Your task to perform on an android device: Show the shopping cart on bestbuy. Add "duracell triple a" to the cart on bestbuy Image 0: 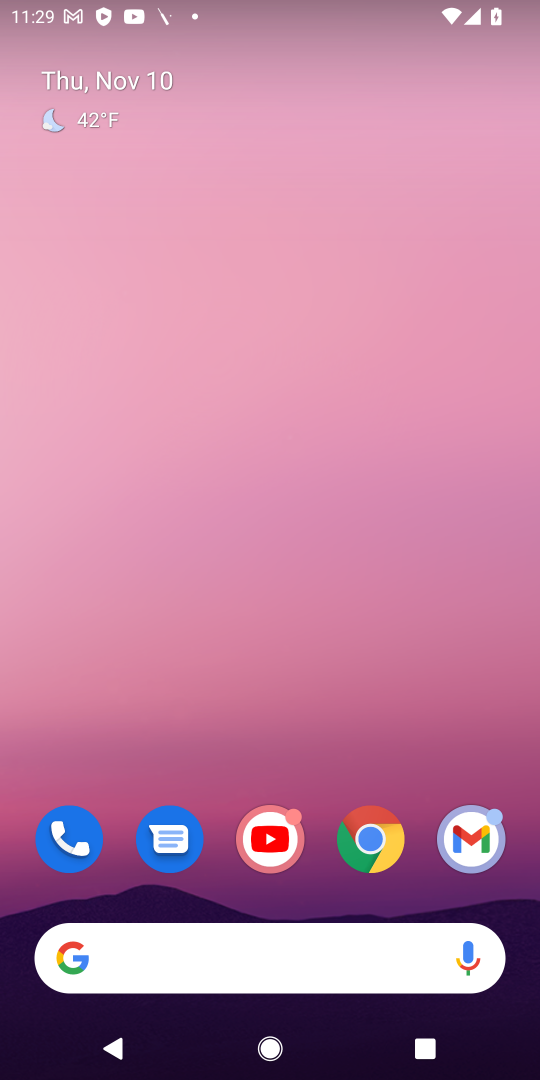
Step 0: click (364, 844)
Your task to perform on an android device: Show the shopping cart on bestbuy. Add "duracell triple a" to the cart on bestbuy Image 1: 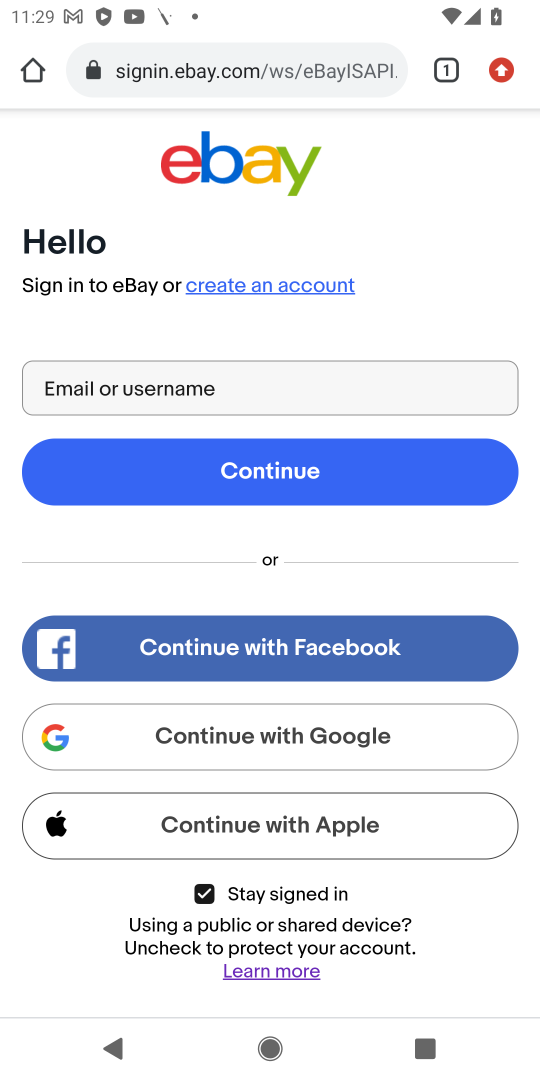
Step 1: click (301, 61)
Your task to perform on an android device: Show the shopping cart on bestbuy. Add "duracell triple a" to the cart on bestbuy Image 2: 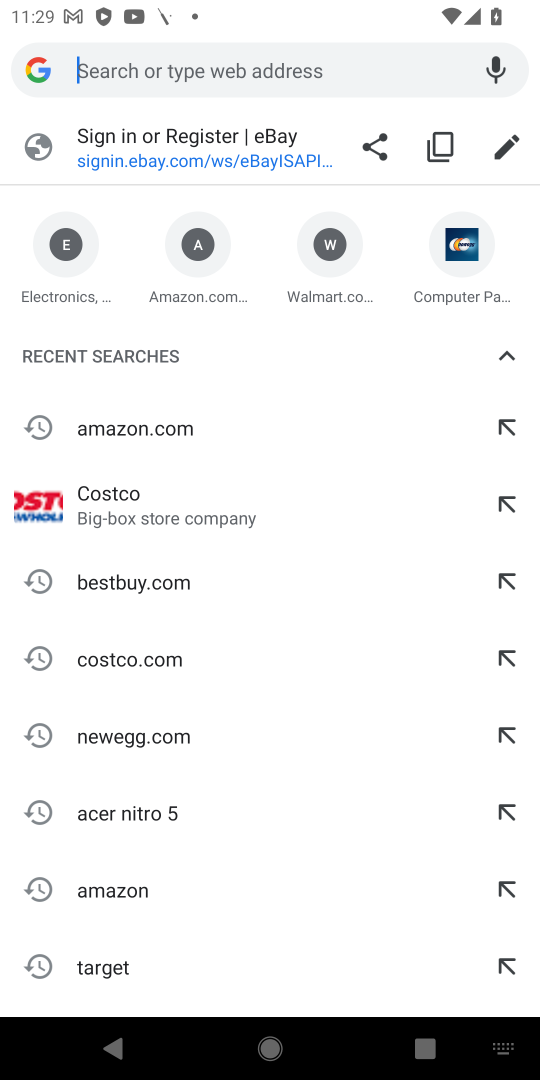
Step 2: type "bestbuy"
Your task to perform on an android device: Show the shopping cart on bestbuy. Add "duracell triple a" to the cart on bestbuy Image 3: 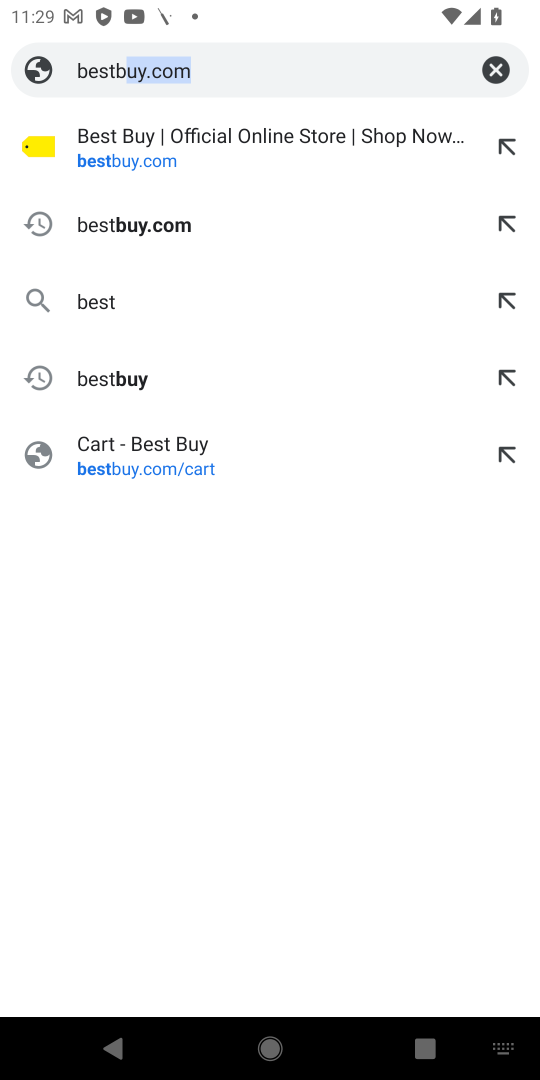
Step 3: press enter
Your task to perform on an android device: Show the shopping cart on bestbuy. Add "duracell triple a" to the cart on bestbuy Image 4: 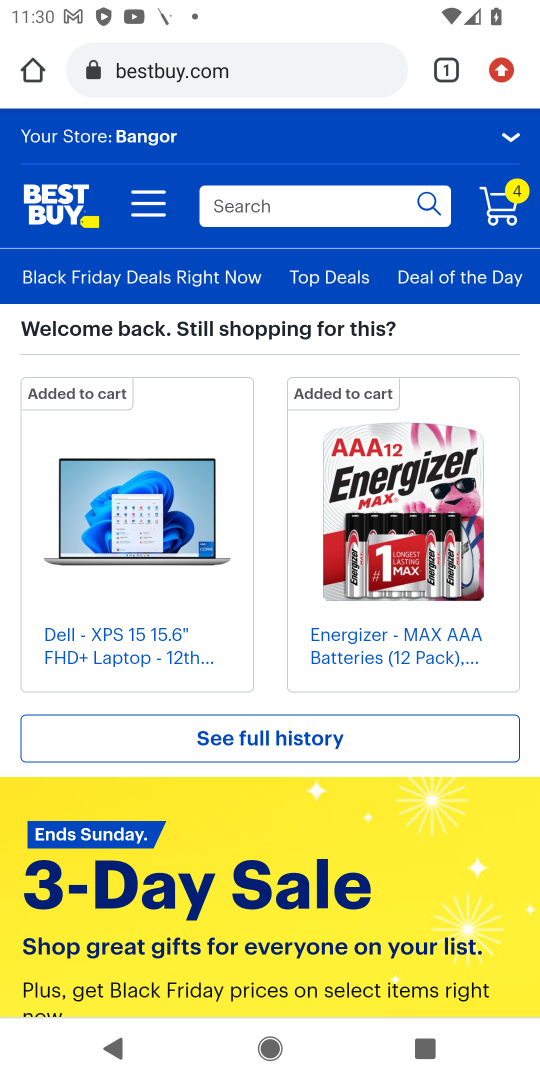
Step 4: click (333, 189)
Your task to perform on an android device: Show the shopping cart on bestbuy. Add "duracell triple a" to the cart on bestbuy Image 5: 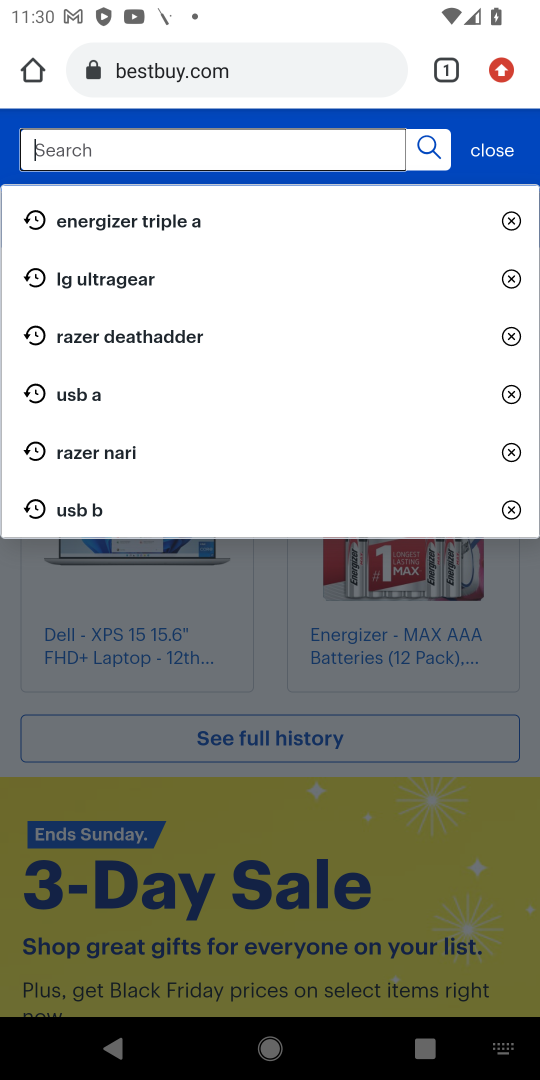
Step 5: press enter
Your task to perform on an android device: Show the shopping cart on bestbuy. Add "duracell triple a" to the cart on bestbuy Image 6: 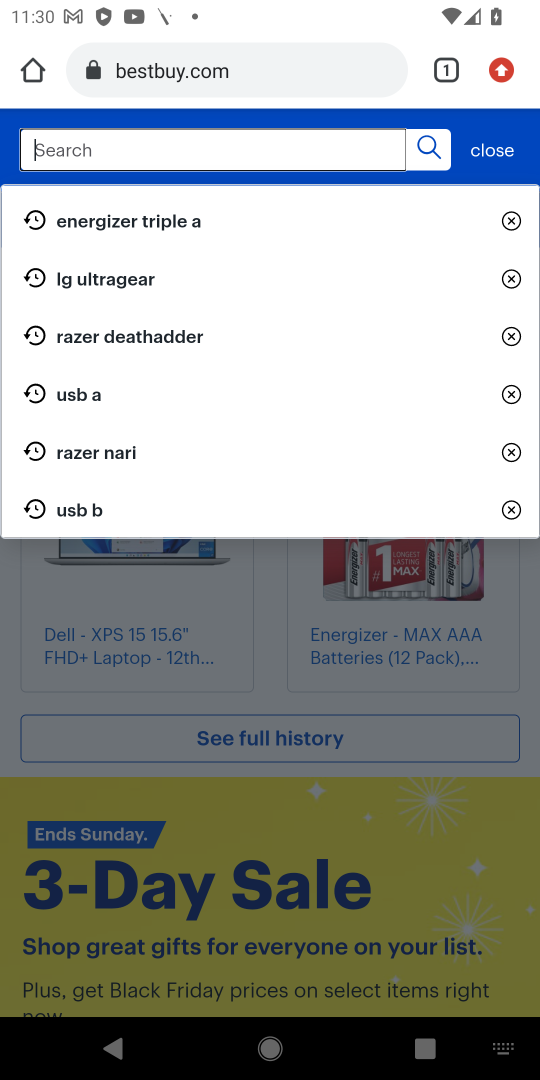
Step 6: type "duracell triple a"
Your task to perform on an android device: Show the shopping cart on bestbuy. Add "duracell triple a" to the cart on bestbuy Image 7: 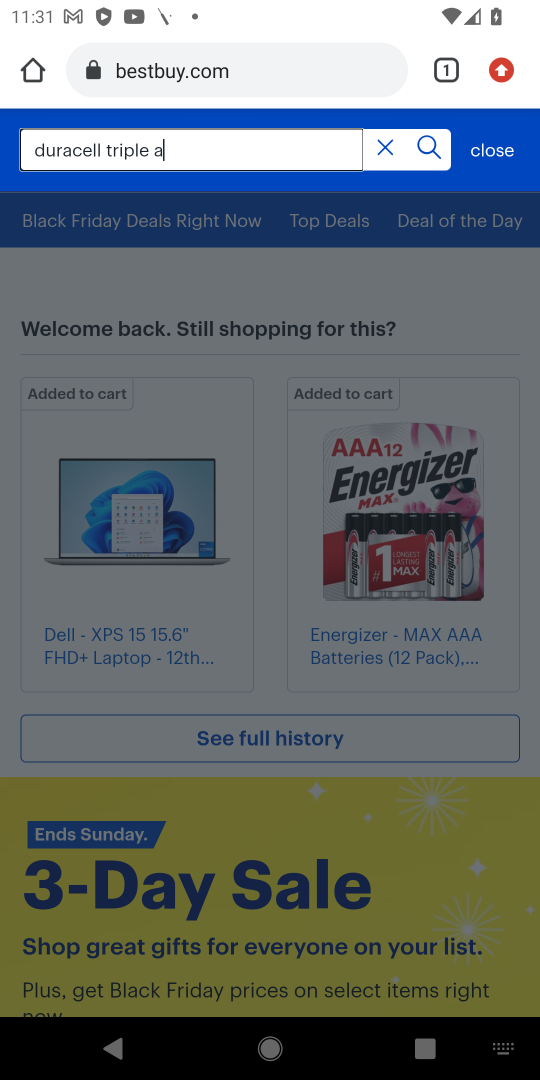
Step 7: click (432, 147)
Your task to perform on an android device: Show the shopping cart on bestbuy. Add "duracell triple a" to the cart on bestbuy Image 8: 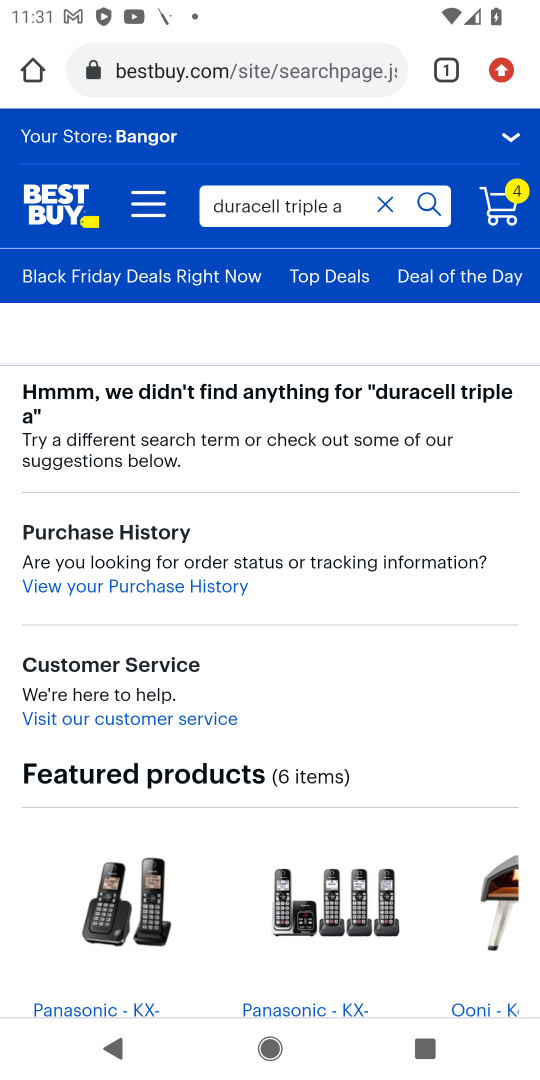
Step 8: task complete